Your task to perform on an android device: toggle wifi Image 0: 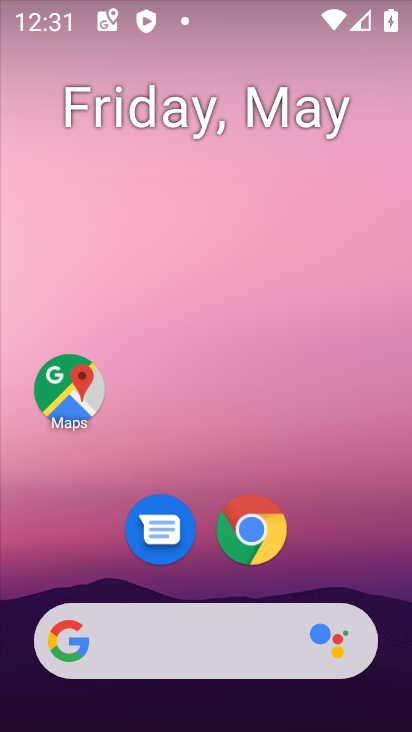
Step 0: drag from (311, 520) to (121, 164)
Your task to perform on an android device: toggle wifi Image 1: 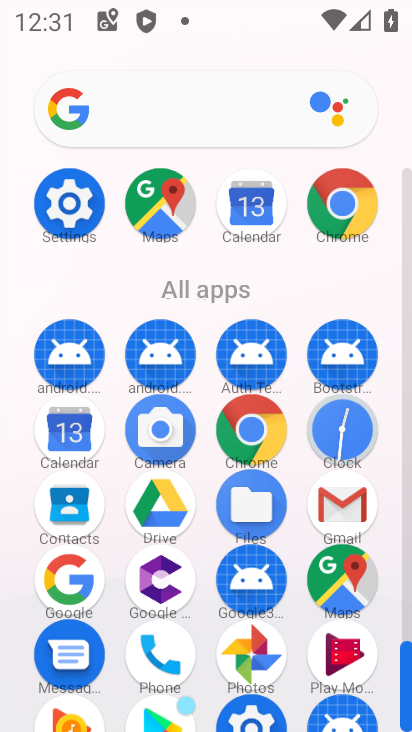
Step 1: click (63, 215)
Your task to perform on an android device: toggle wifi Image 2: 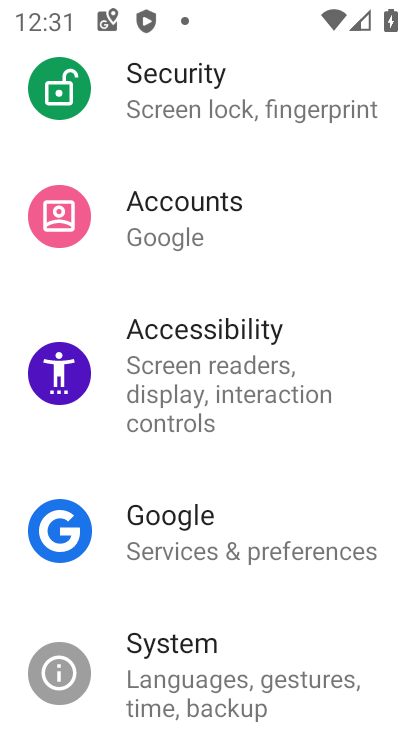
Step 2: drag from (127, 205) to (113, 598)
Your task to perform on an android device: toggle wifi Image 3: 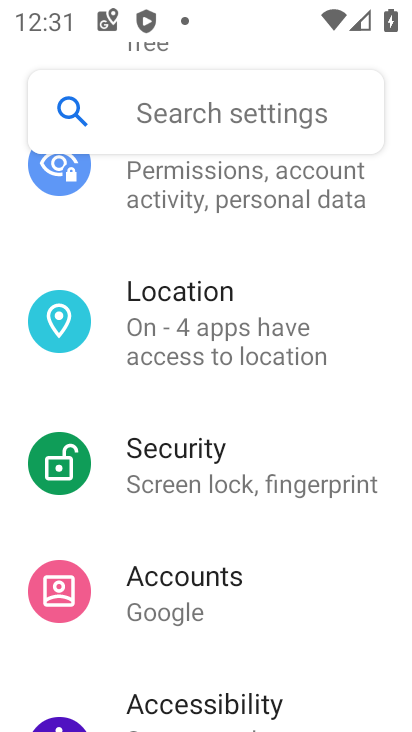
Step 3: drag from (153, 238) to (166, 577)
Your task to perform on an android device: toggle wifi Image 4: 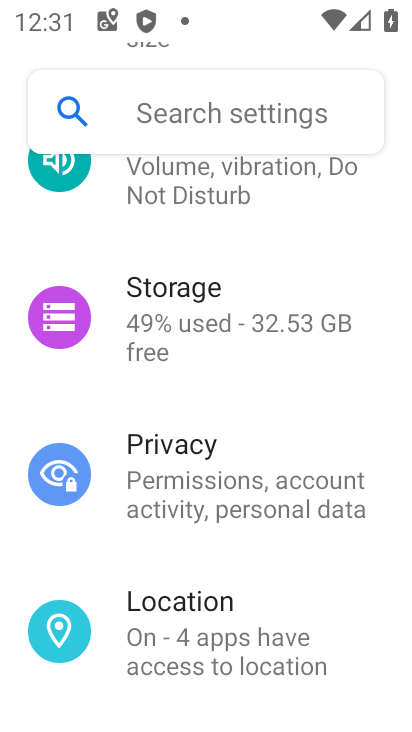
Step 4: drag from (218, 283) to (221, 570)
Your task to perform on an android device: toggle wifi Image 5: 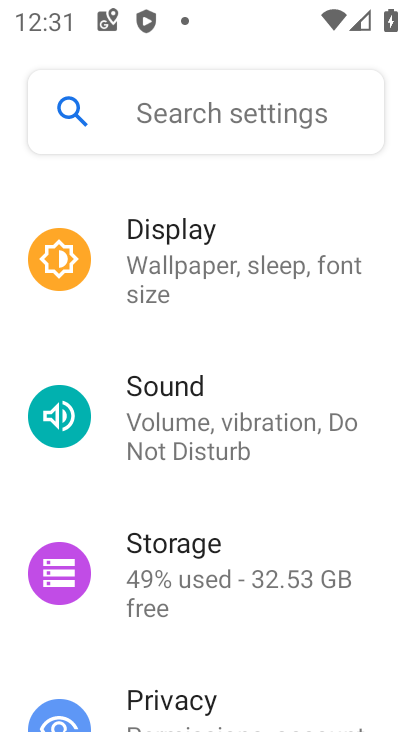
Step 5: drag from (199, 251) to (186, 610)
Your task to perform on an android device: toggle wifi Image 6: 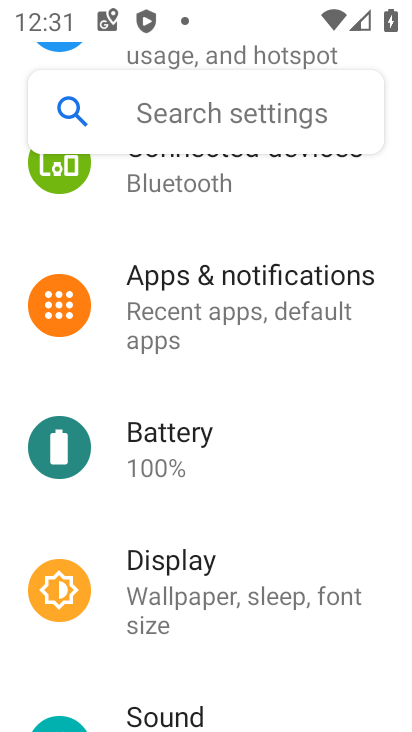
Step 6: drag from (242, 265) to (231, 584)
Your task to perform on an android device: toggle wifi Image 7: 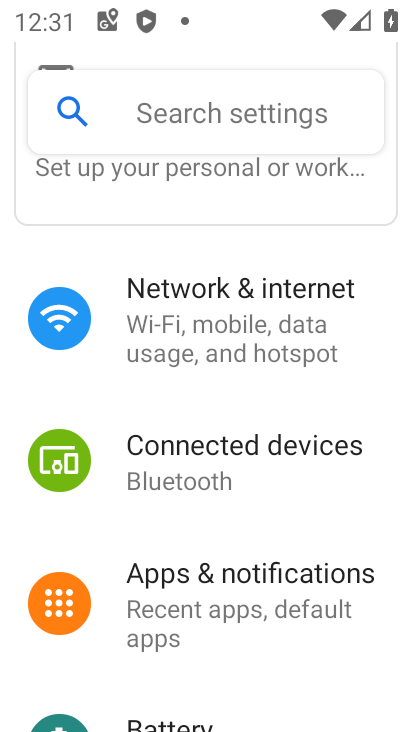
Step 7: click (136, 319)
Your task to perform on an android device: toggle wifi Image 8: 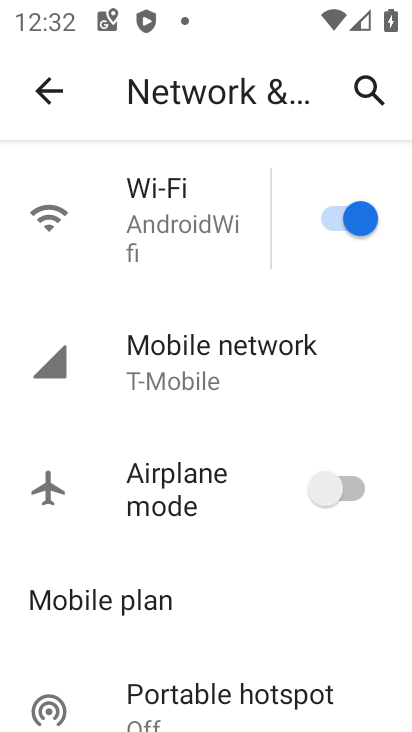
Step 8: click (356, 210)
Your task to perform on an android device: toggle wifi Image 9: 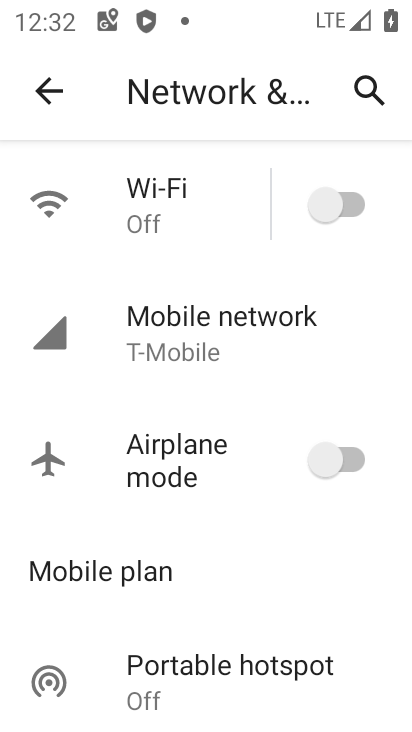
Step 9: task complete